Your task to perform on an android device: open chrome and create a bookmark for the current page Image 0: 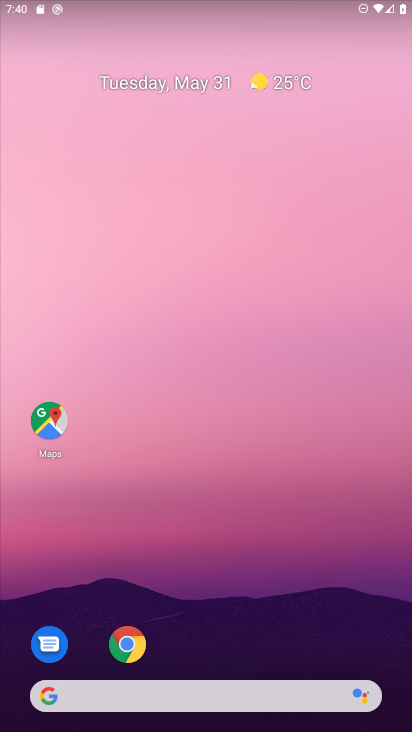
Step 0: drag from (256, 718) to (343, 208)
Your task to perform on an android device: open chrome and create a bookmark for the current page Image 1: 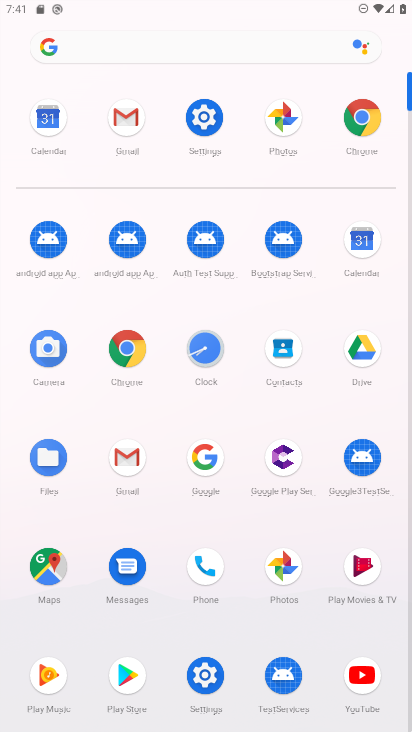
Step 1: click (363, 121)
Your task to perform on an android device: open chrome and create a bookmark for the current page Image 2: 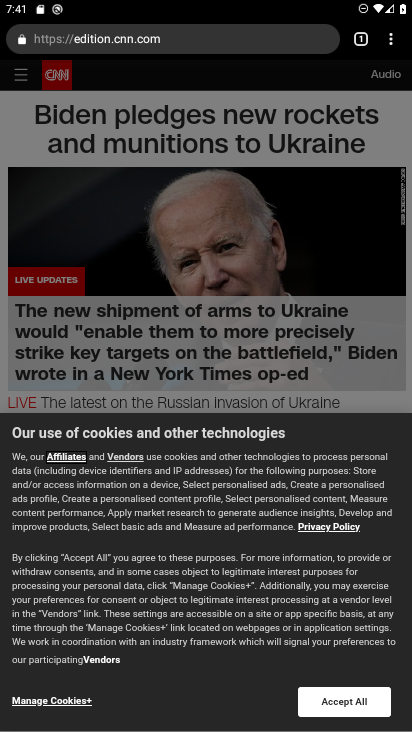
Step 2: click (395, 36)
Your task to perform on an android device: open chrome and create a bookmark for the current page Image 3: 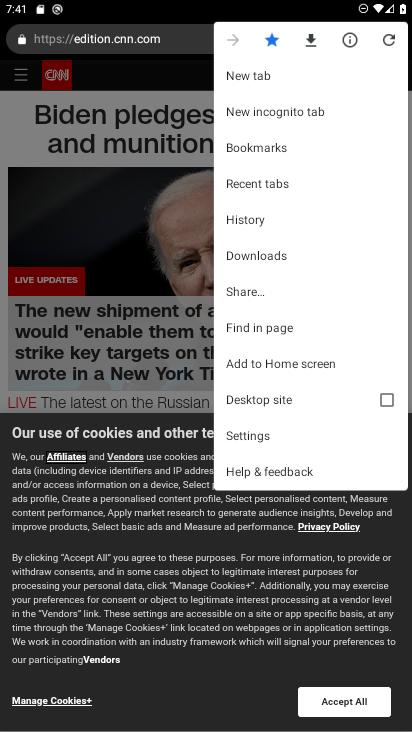
Step 3: click (272, 146)
Your task to perform on an android device: open chrome and create a bookmark for the current page Image 4: 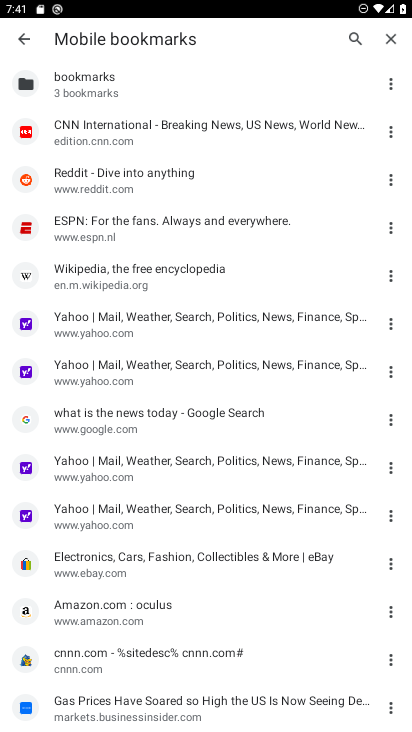
Step 4: task complete